Your task to perform on an android device: Open the calendar app, open the side menu, and click the "Day" option Image 0: 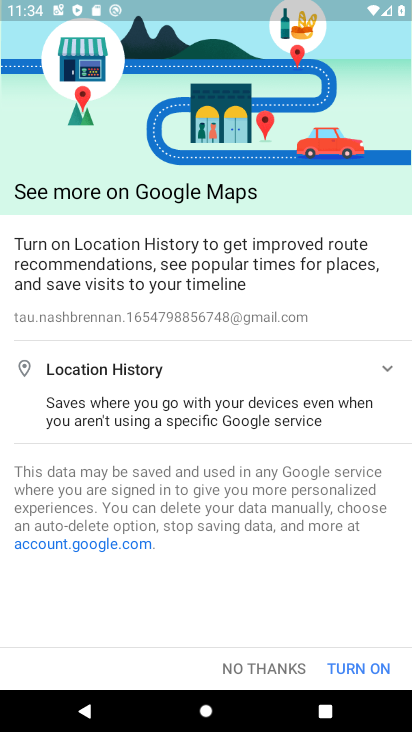
Step 0: press back button
Your task to perform on an android device: Open the calendar app, open the side menu, and click the "Day" option Image 1: 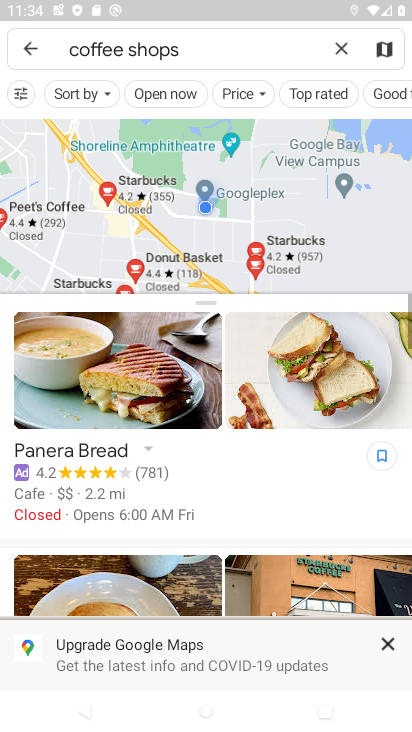
Step 1: press back button
Your task to perform on an android device: Open the calendar app, open the side menu, and click the "Day" option Image 2: 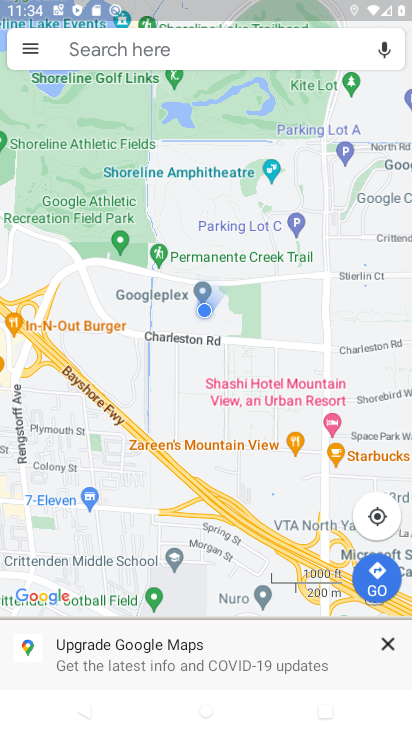
Step 2: press back button
Your task to perform on an android device: Open the calendar app, open the side menu, and click the "Day" option Image 3: 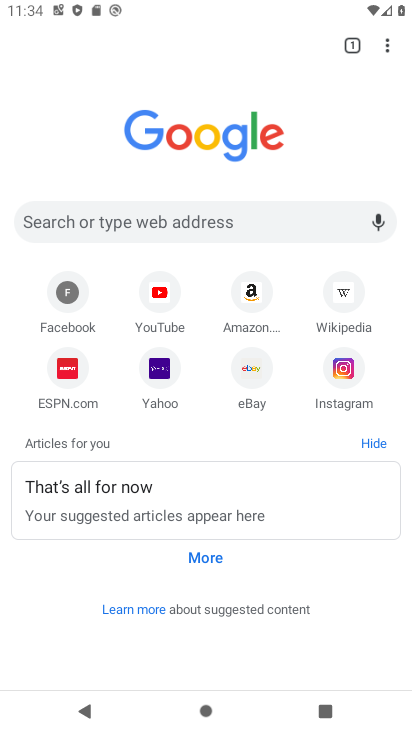
Step 3: press back button
Your task to perform on an android device: Open the calendar app, open the side menu, and click the "Day" option Image 4: 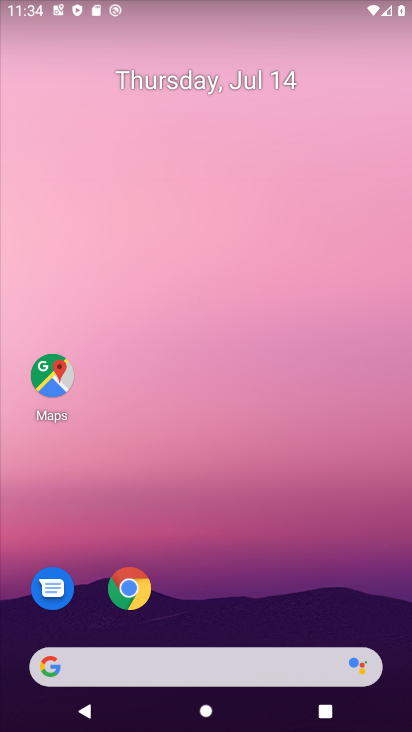
Step 4: drag from (208, 594) to (277, 12)
Your task to perform on an android device: Open the calendar app, open the side menu, and click the "Day" option Image 5: 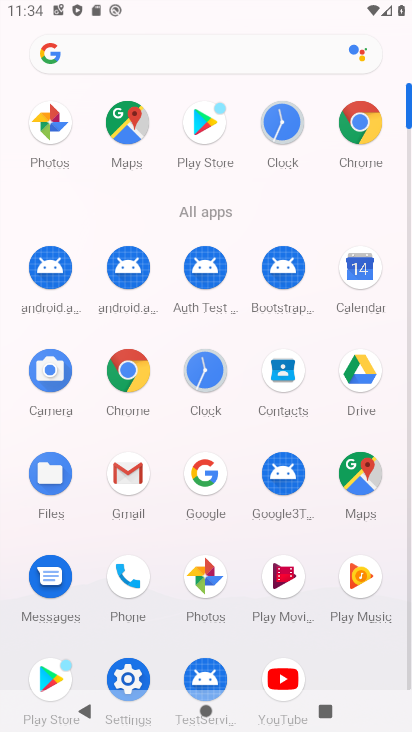
Step 5: click (363, 272)
Your task to perform on an android device: Open the calendar app, open the side menu, and click the "Day" option Image 6: 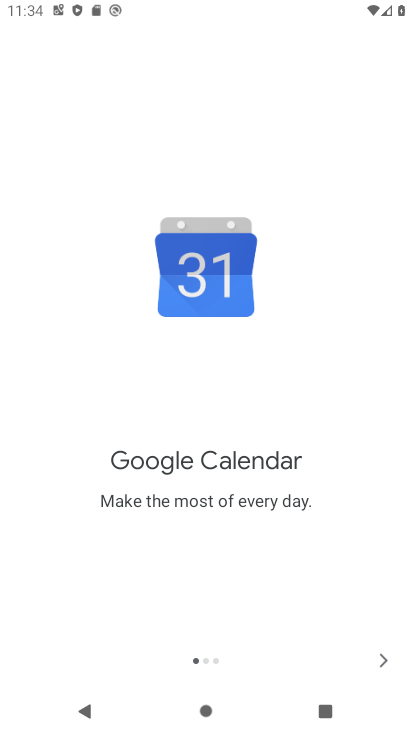
Step 6: click (389, 654)
Your task to perform on an android device: Open the calendar app, open the side menu, and click the "Day" option Image 7: 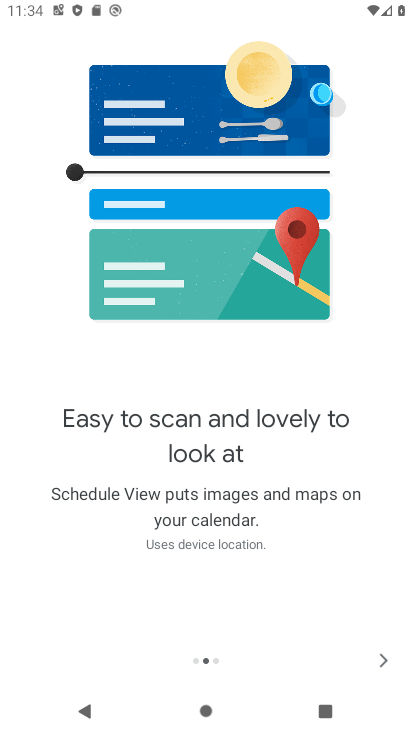
Step 7: click (389, 654)
Your task to perform on an android device: Open the calendar app, open the side menu, and click the "Day" option Image 8: 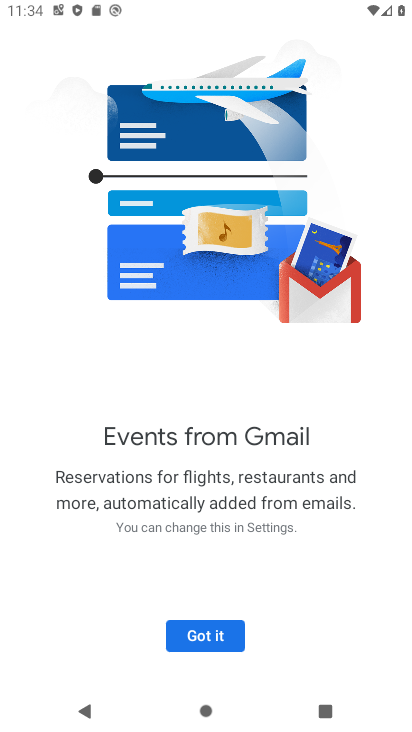
Step 8: click (194, 619)
Your task to perform on an android device: Open the calendar app, open the side menu, and click the "Day" option Image 9: 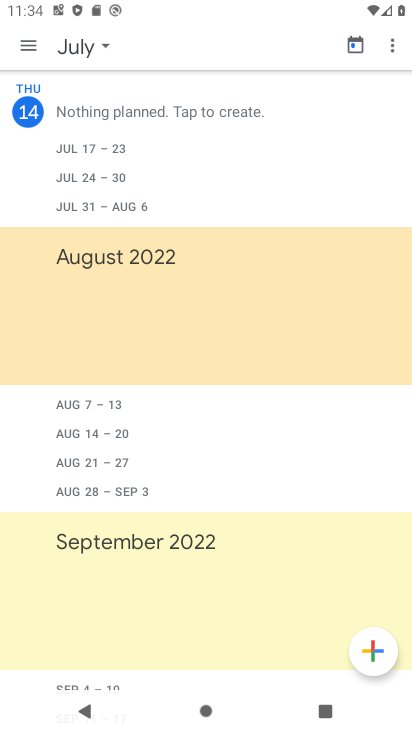
Step 9: click (31, 48)
Your task to perform on an android device: Open the calendar app, open the side menu, and click the "Day" option Image 10: 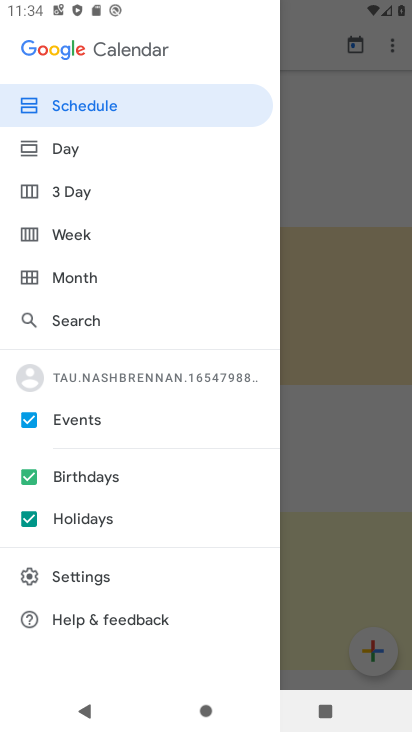
Step 10: click (74, 141)
Your task to perform on an android device: Open the calendar app, open the side menu, and click the "Day" option Image 11: 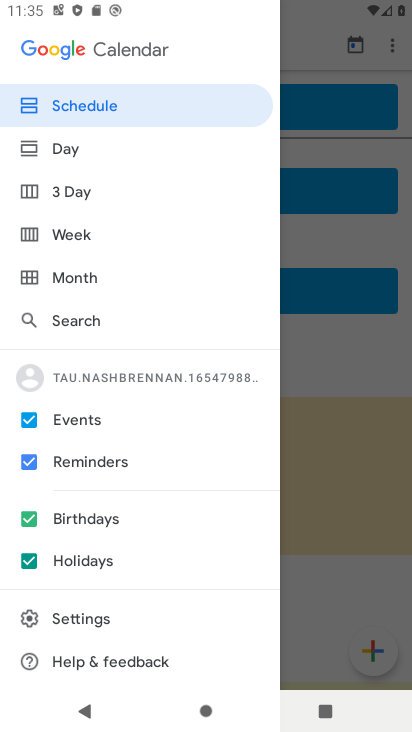
Step 11: click (77, 148)
Your task to perform on an android device: Open the calendar app, open the side menu, and click the "Day" option Image 12: 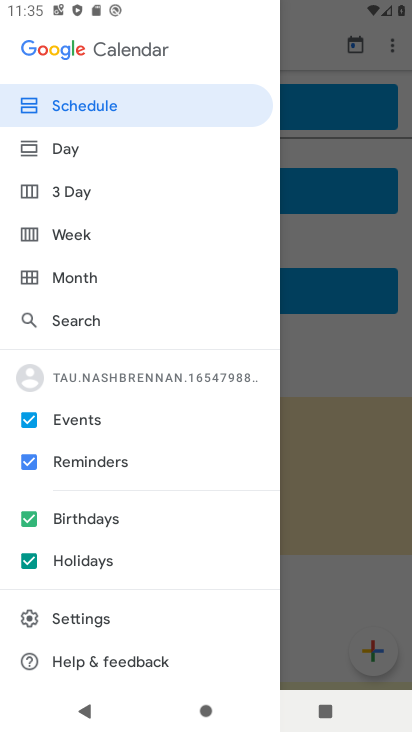
Step 12: click (77, 148)
Your task to perform on an android device: Open the calendar app, open the side menu, and click the "Day" option Image 13: 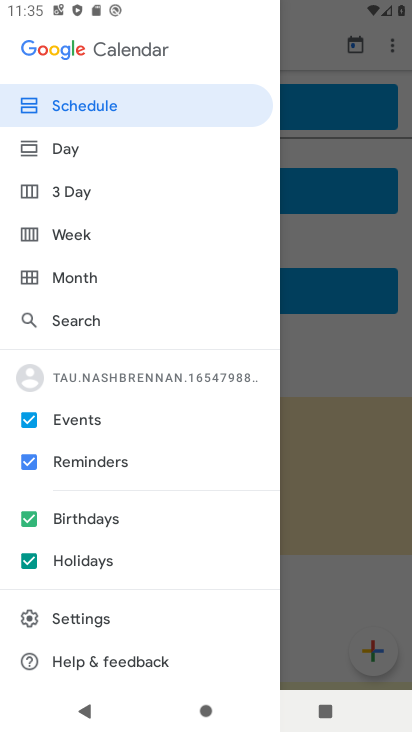
Step 13: task complete